Your task to perform on an android device: toggle location history Image 0: 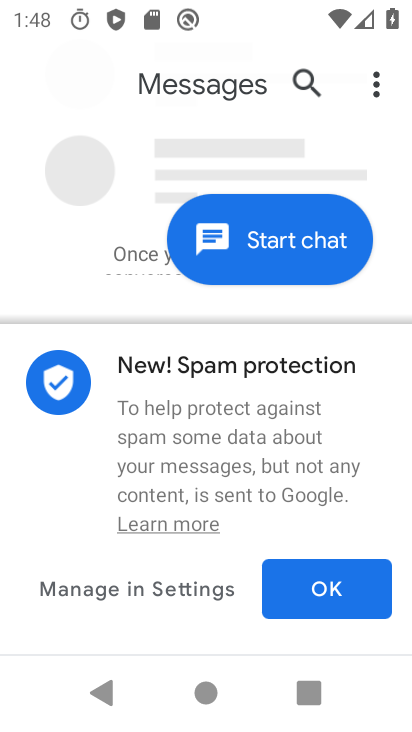
Step 0: click (295, 604)
Your task to perform on an android device: toggle location history Image 1: 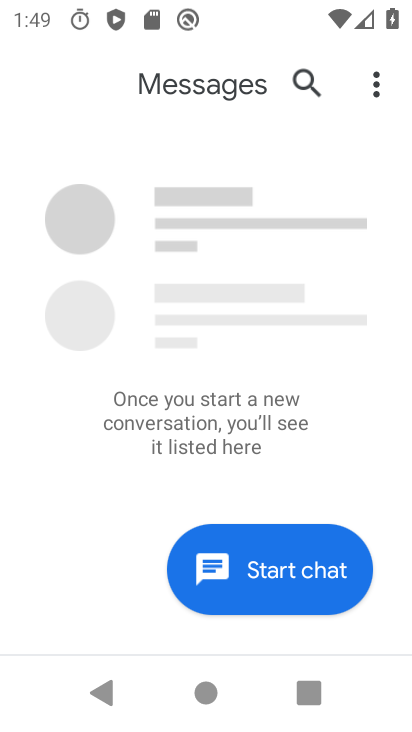
Step 1: press home button
Your task to perform on an android device: toggle location history Image 2: 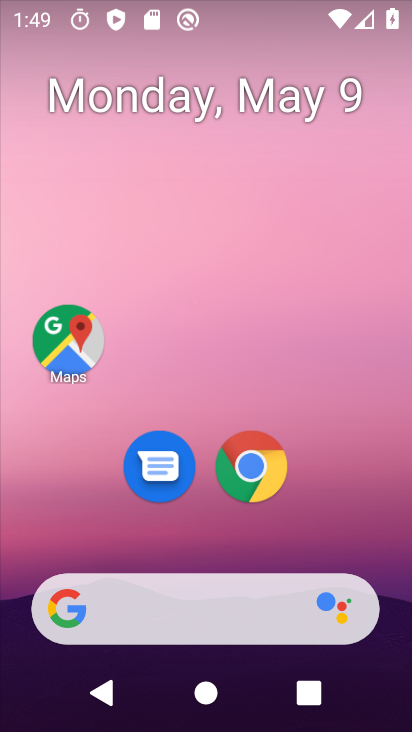
Step 2: drag from (315, 622) to (381, 104)
Your task to perform on an android device: toggle location history Image 3: 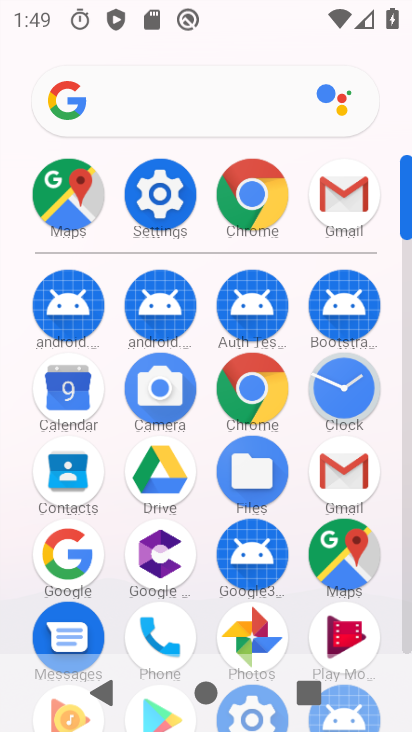
Step 3: click (162, 191)
Your task to perform on an android device: toggle location history Image 4: 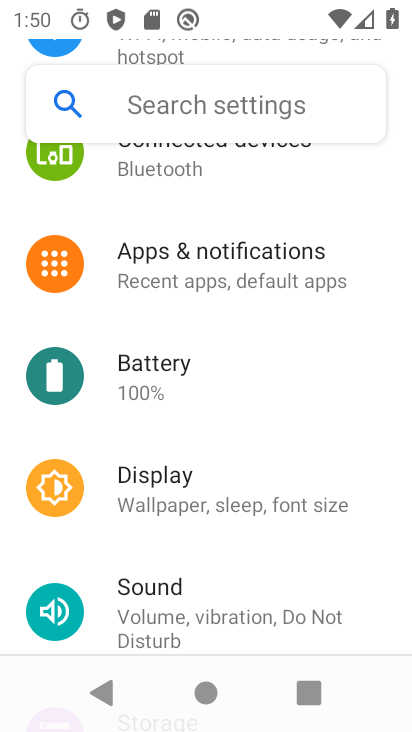
Step 4: drag from (208, 473) to (251, 93)
Your task to perform on an android device: toggle location history Image 5: 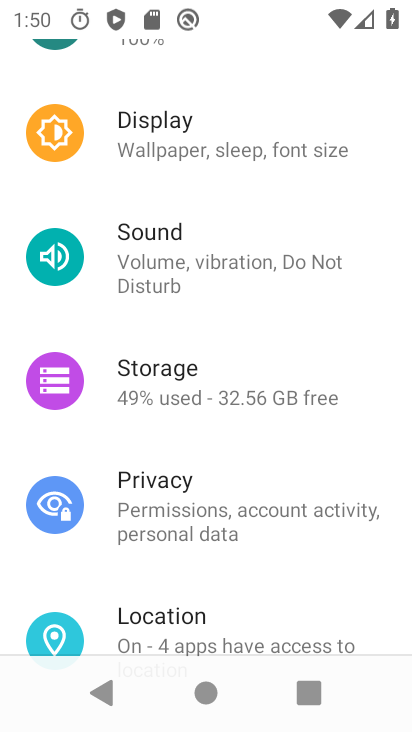
Step 5: drag from (263, 498) to (280, 224)
Your task to perform on an android device: toggle location history Image 6: 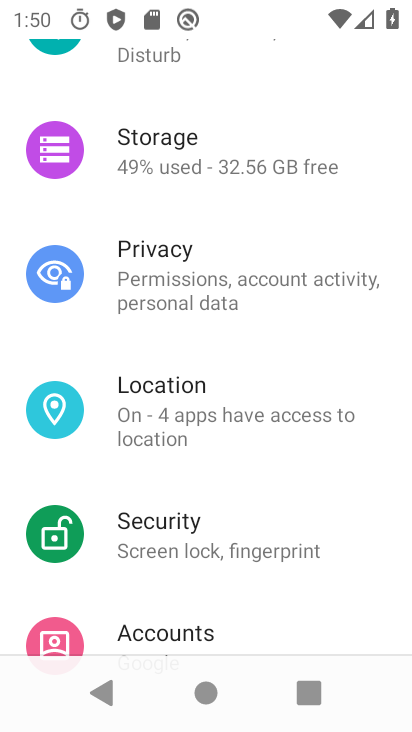
Step 6: click (225, 375)
Your task to perform on an android device: toggle location history Image 7: 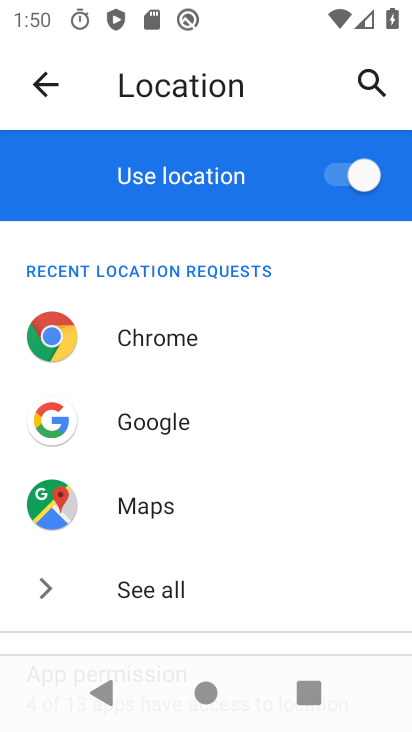
Step 7: drag from (187, 644) to (211, 212)
Your task to perform on an android device: toggle location history Image 8: 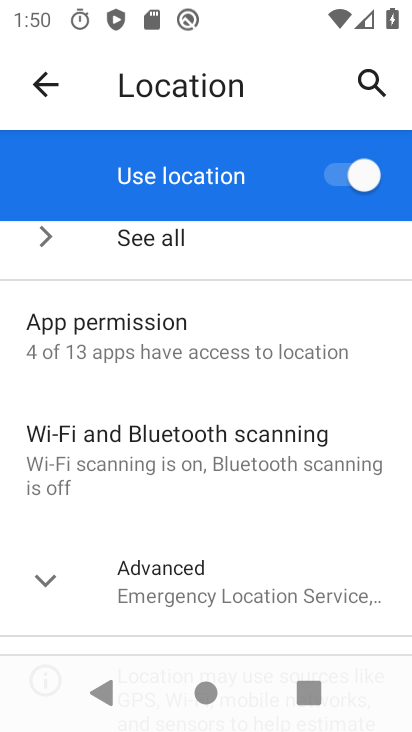
Step 8: click (203, 592)
Your task to perform on an android device: toggle location history Image 9: 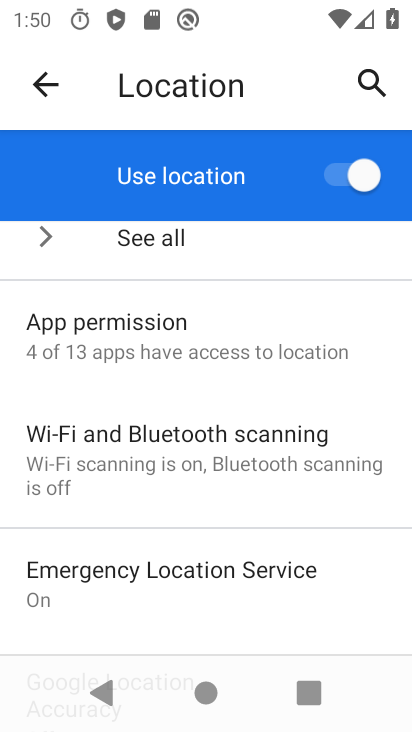
Step 9: drag from (203, 592) to (226, 334)
Your task to perform on an android device: toggle location history Image 10: 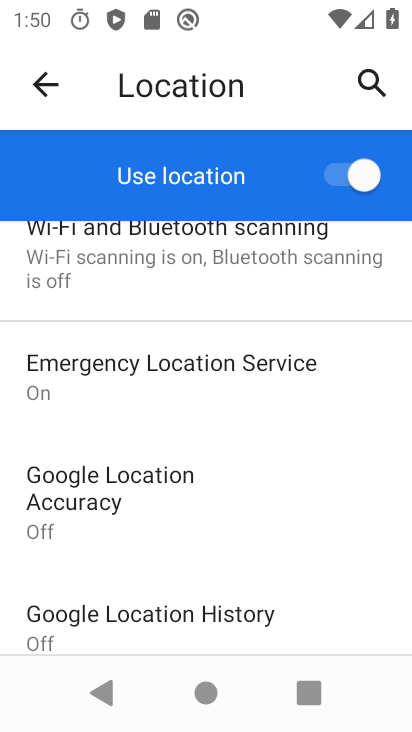
Step 10: drag from (221, 536) to (223, 417)
Your task to perform on an android device: toggle location history Image 11: 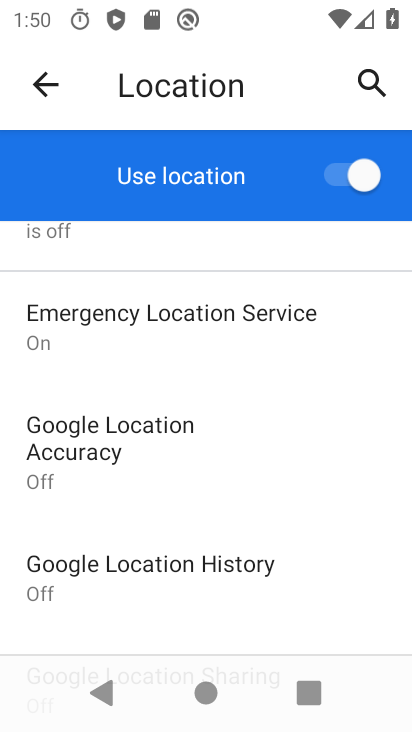
Step 11: click (197, 563)
Your task to perform on an android device: toggle location history Image 12: 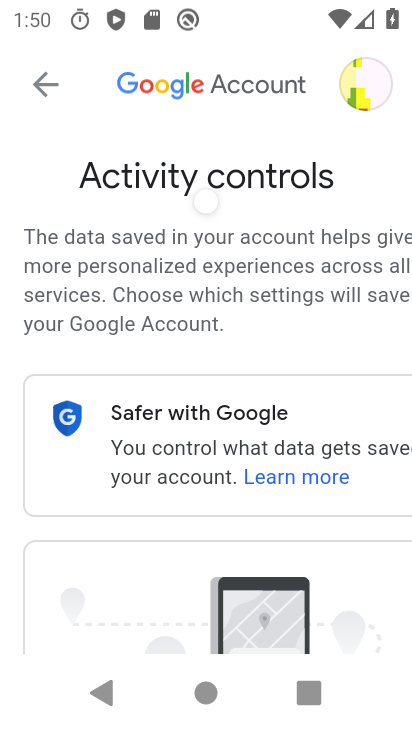
Step 12: drag from (197, 563) to (192, 118)
Your task to perform on an android device: toggle location history Image 13: 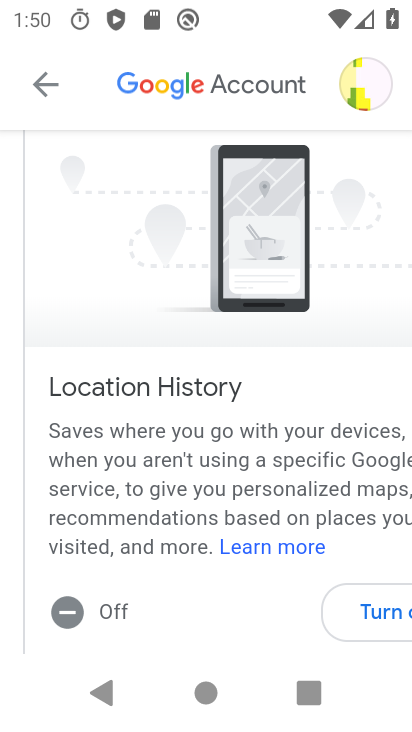
Step 13: drag from (321, 435) to (129, 268)
Your task to perform on an android device: toggle location history Image 14: 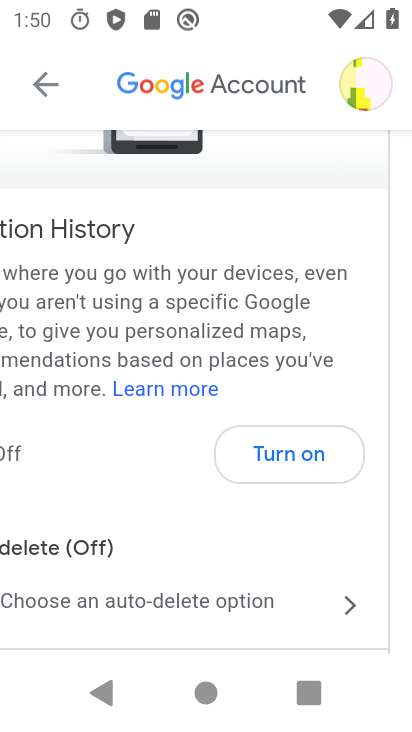
Step 14: click (309, 443)
Your task to perform on an android device: toggle location history Image 15: 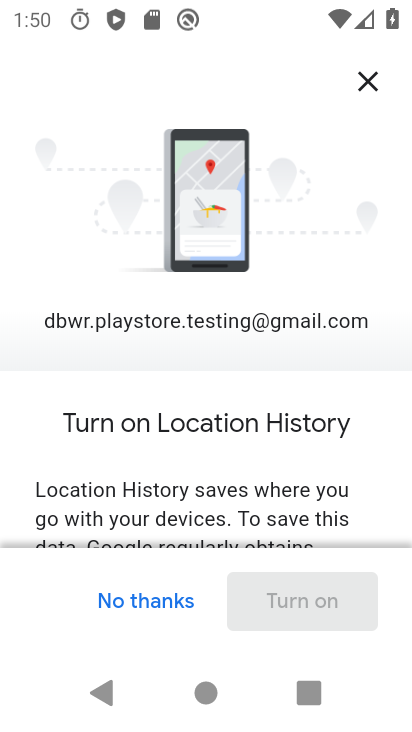
Step 15: drag from (309, 443) to (282, 13)
Your task to perform on an android device: toggle location history Image 16: 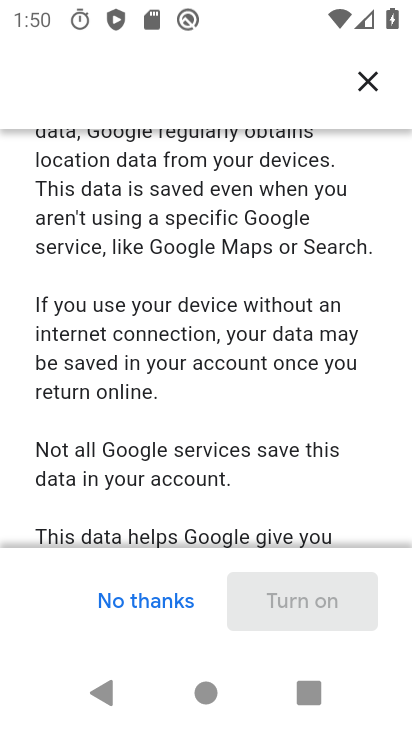
Step 16: drag from (235, 339) to (285, 42)
Your task to perform on an android device: toggle location history Image 17: 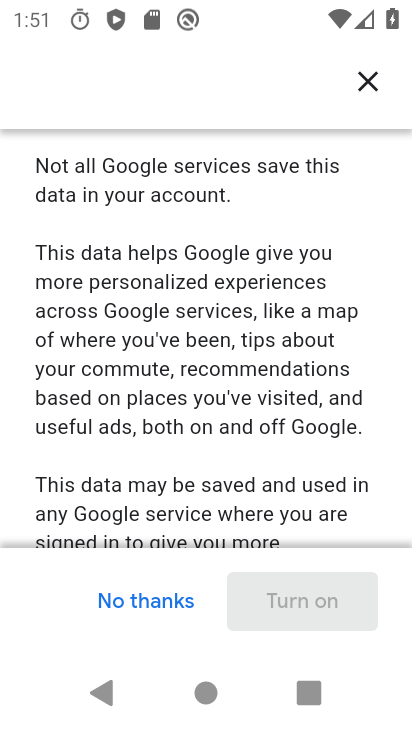
Step 17: drag from (234, 405) to (260, 206)
Your task to perform on an android device: toggle location history Image 18: 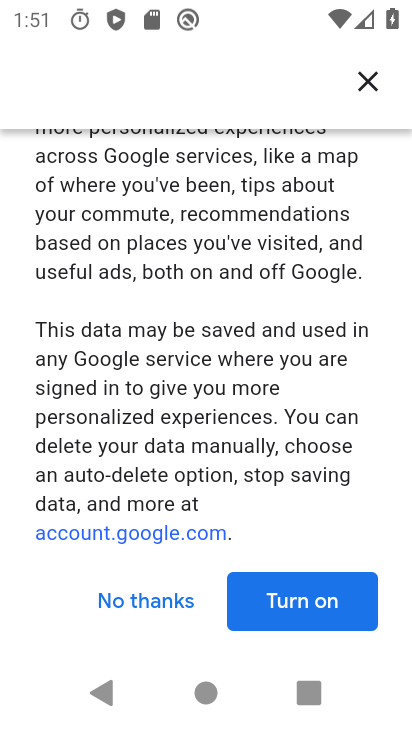
Step 18: click (276, 586)
Your task to perform on an android device: toggle location history Image 19: 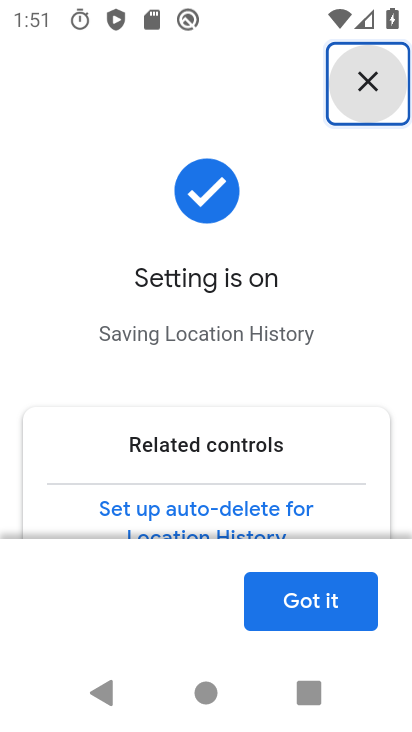
Step 19: click (302, 624)
Your task to perform on an android device: toggle location history Image 20: 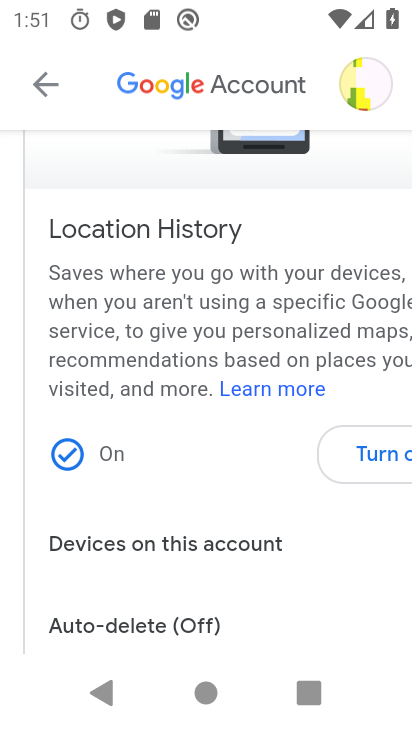
Step 20: task complete